Your task to perform on an android device: Check the weather Image 0: 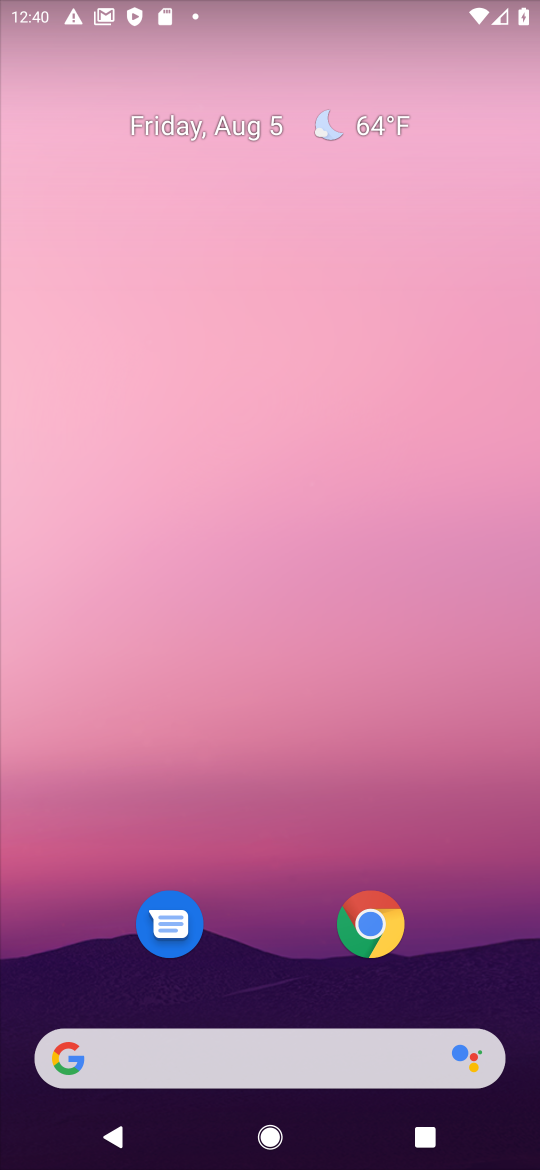
Step 0: press home button
Your task to perform on an android device: Check the weather Image 1: 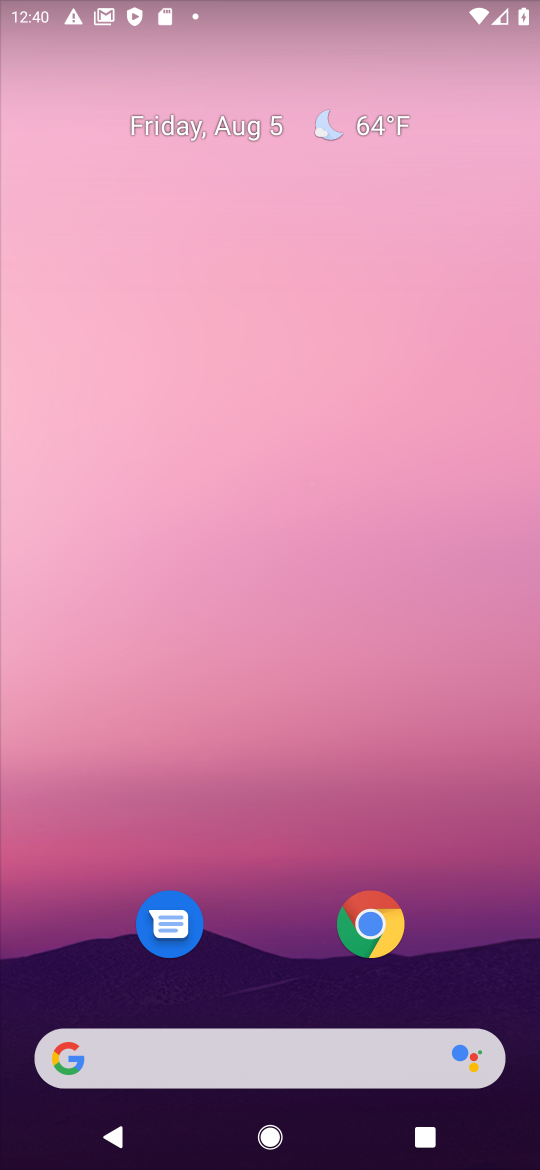
Step 1: click (71, 1062)
Your task to perform on an android device: Check the weather Image 2: 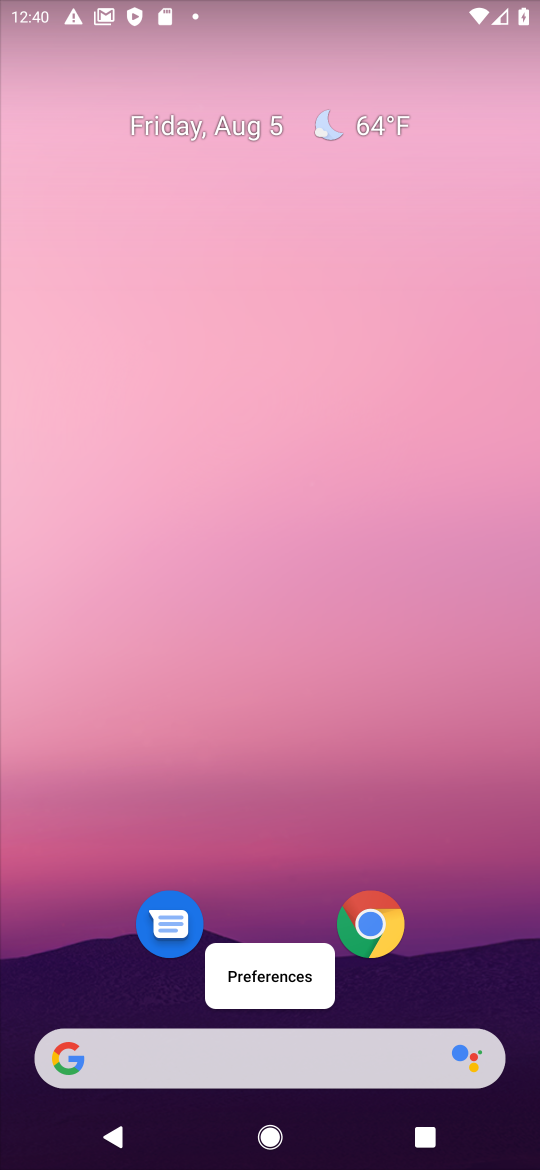
Step 2: click (71, 1062)
Your task to perform on an android device: Check the weather Image 3: 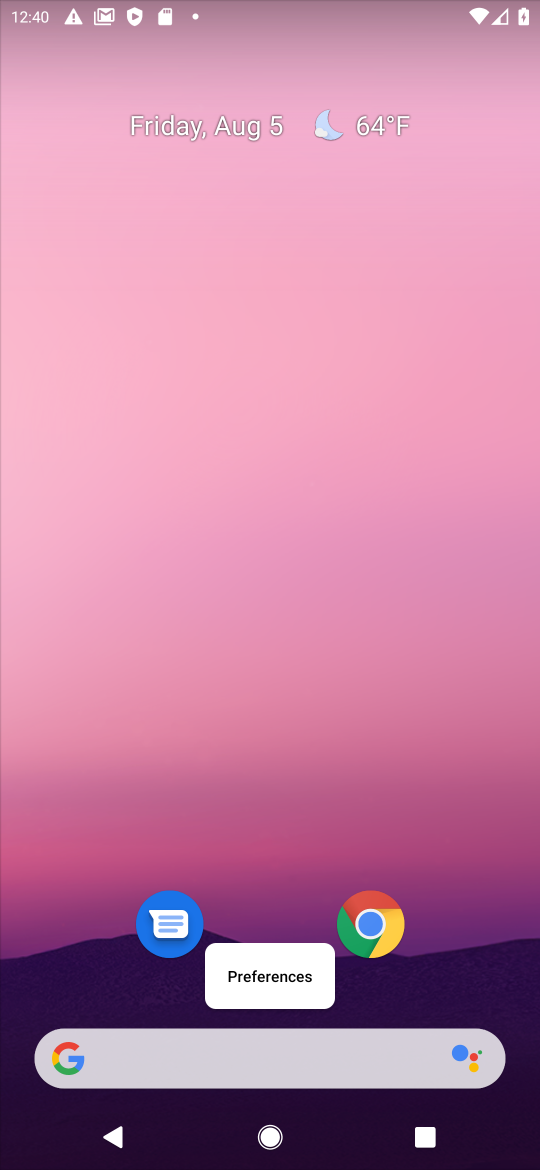
Step 3: click (70, 1061)
Your task to perform on an android device: Check the weather Image 4: 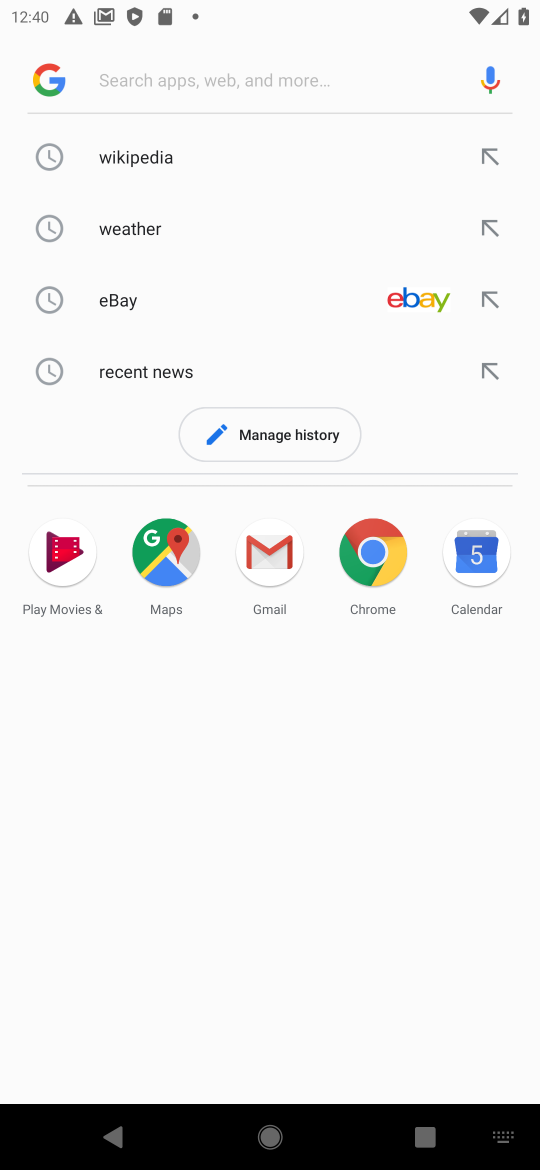
Step 4: click (125, 231)
Your task to perform on an android device: Check the weather Image 5: 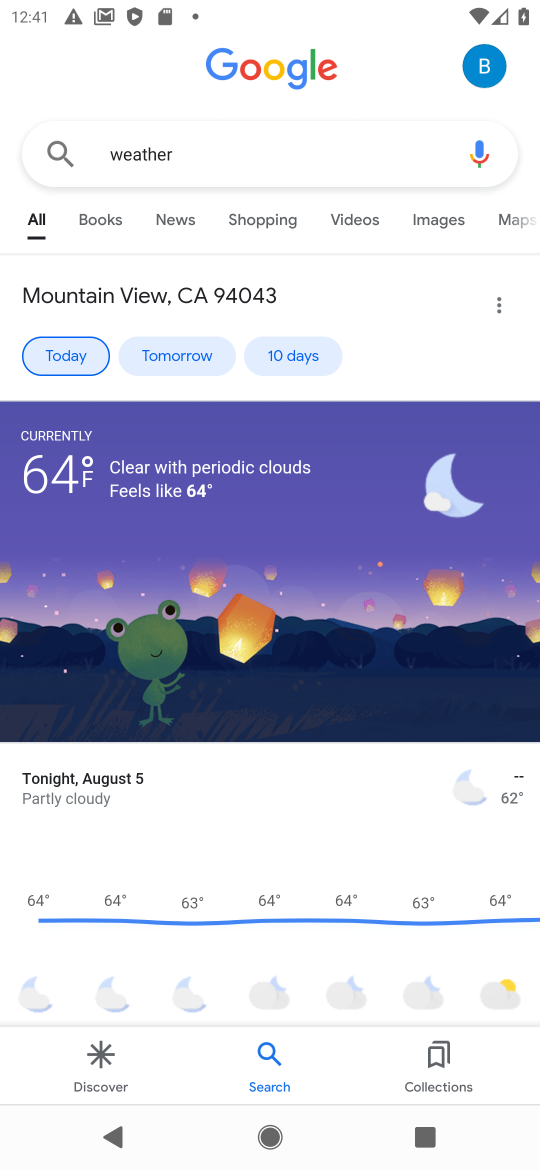
Step 5: task complete